Your task to perform on an android device: Search for seafood restaurants on Google Maps Image 0: 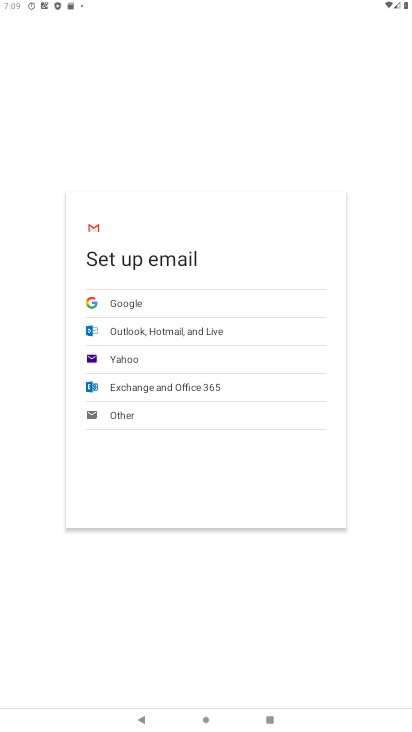
Step 0: press home button
Your task to perform on an android device: Search for seafood restaurants on Google Maps Image 1: 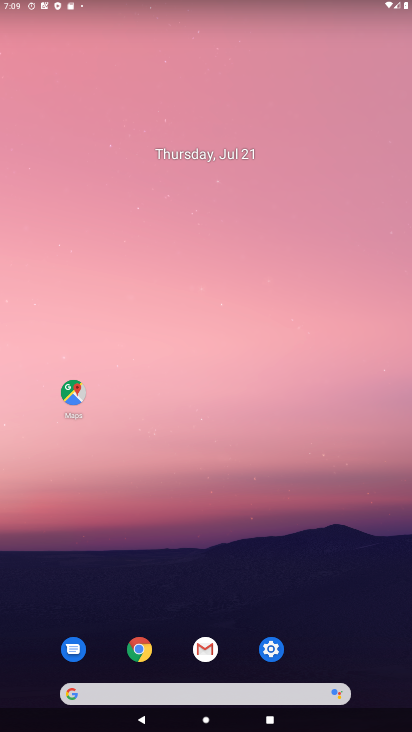
Step 1: click (67, 387)
Your task to perform on an android device: Search for seafood restaurants on Google Maps Image 2: 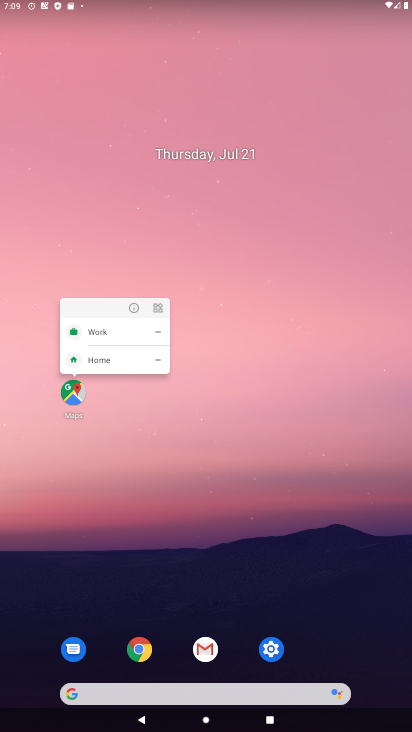
Step 2: click (78, 390)
Your task to perform on an android device: Search for seafood restaurants on Google Maps Image 3: 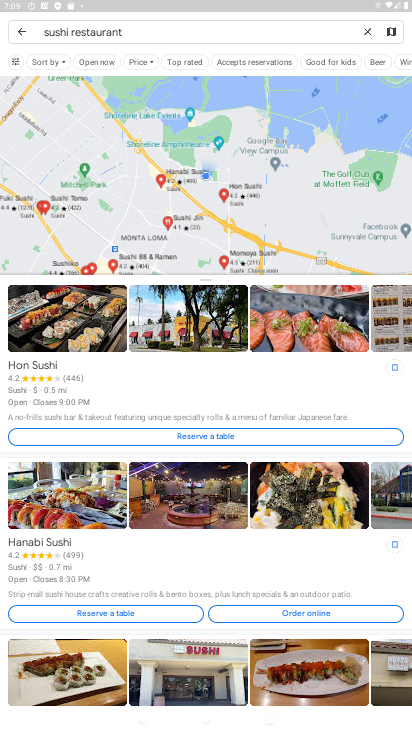
Step 3: click (368, 32)
Your task to perform on an android device: Search for seafood restaurants on Google Maps Image 4: 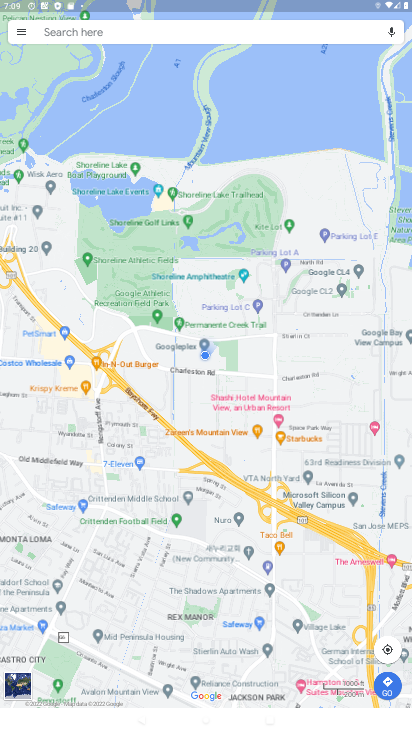
Step 4: click (256, 33)
Your task to perform on an android device: Search for seafood restaurants on Google Maps Image 5: 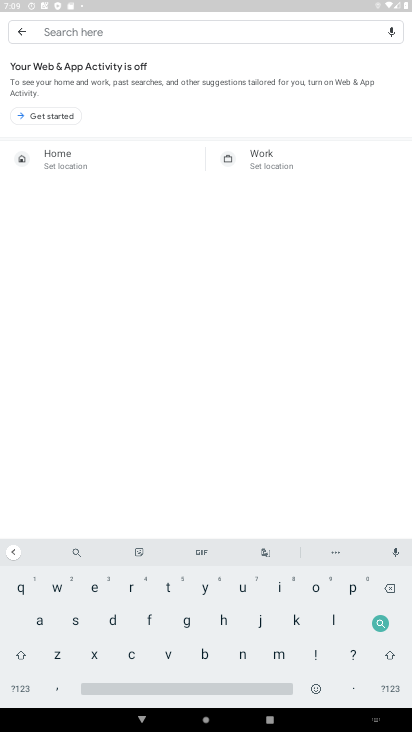
Step 5: click (75, 624)
Your task to perform on an android device: Search for seafood restaurants on Google Maps Image 6: 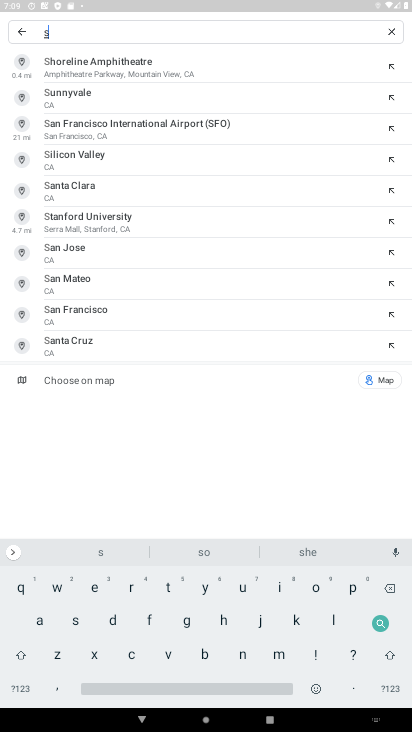
Step 6: click (94, 587)
Your task to perform on an android device: Search for seafood restaurants on Google Maps Image 7: 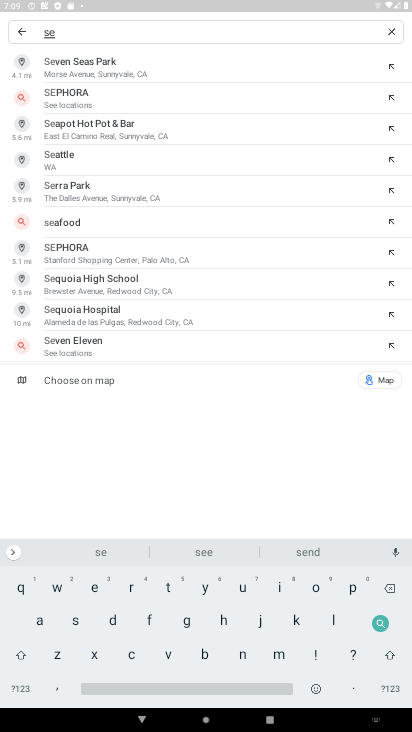
Step 7: click (37, 620)
Your task to perform on an android device: Search for seafood restaurants on Google Maps Image 8: 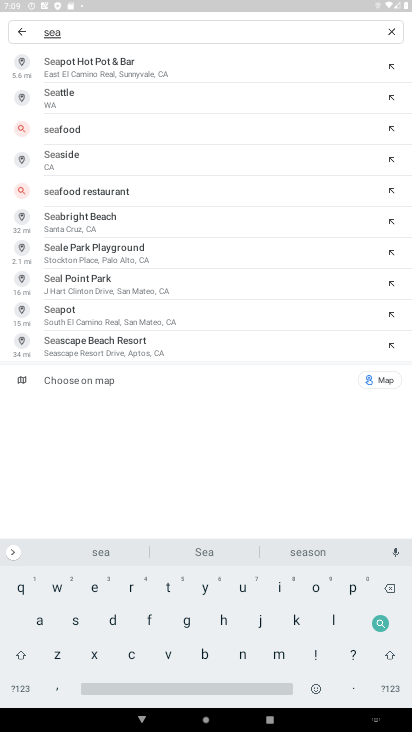
Step 8: click (152, 618)
Your task to perform on an android device: Search for seafood restaurants on Google Maps Image 9: 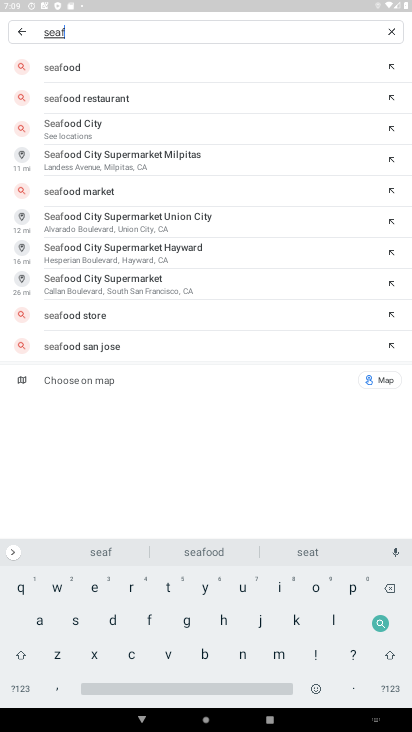
Step 9: click (95, 97)
Your task to perform on an android device: Search for seafood restaurants on Google Maps Image 10: 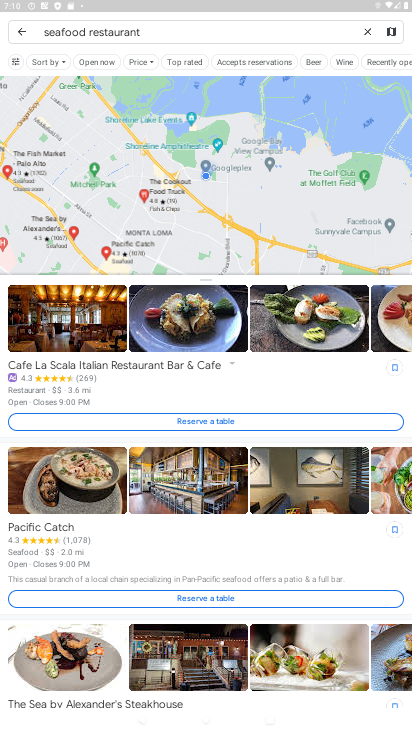
Step 10: task complete